Your task to perform on an android device: What's on my calendar today? Image 0: 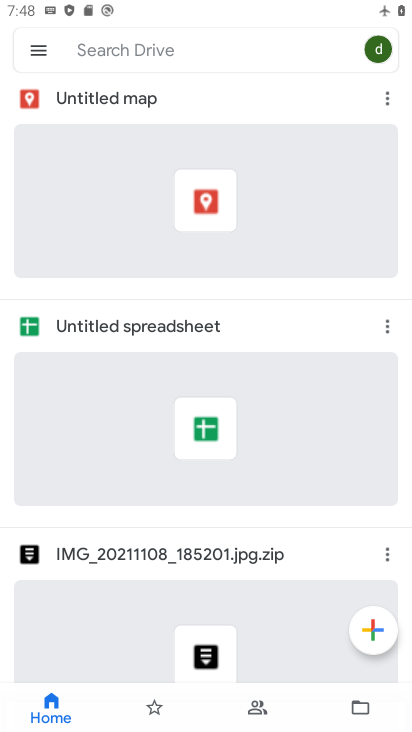
Step 0: press home button
Your task to perform on an android device: What's on my calendar today? Image 1: 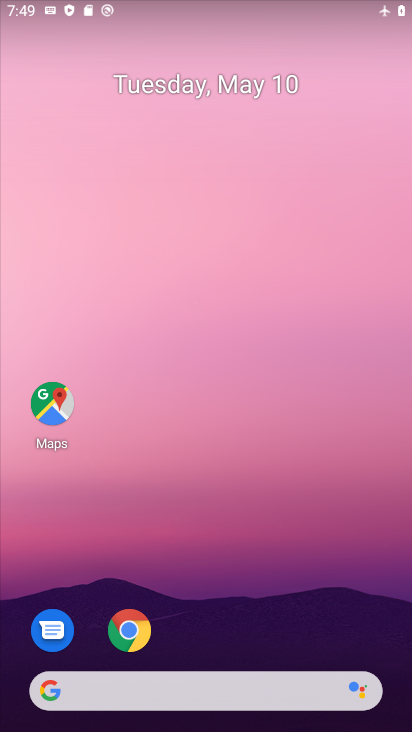
Step 1: drag from (225, 660) to (229, 0)
Your task to perform on an android device: What's on my calendar today? Image 2: 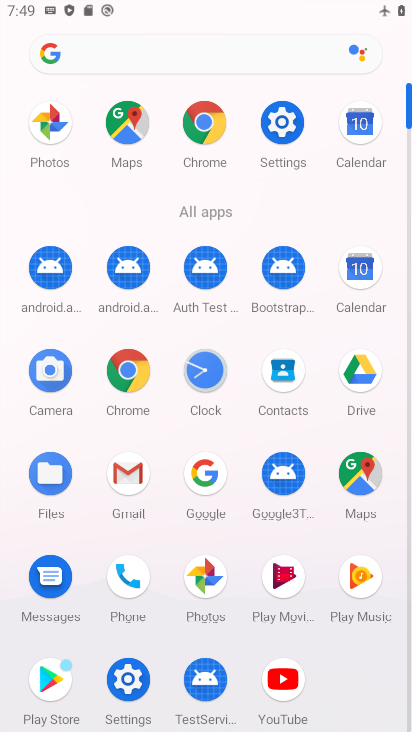
Step 2: click (349, 130)
Your task to perform on an android device: What's on my calendar today? Image 3: 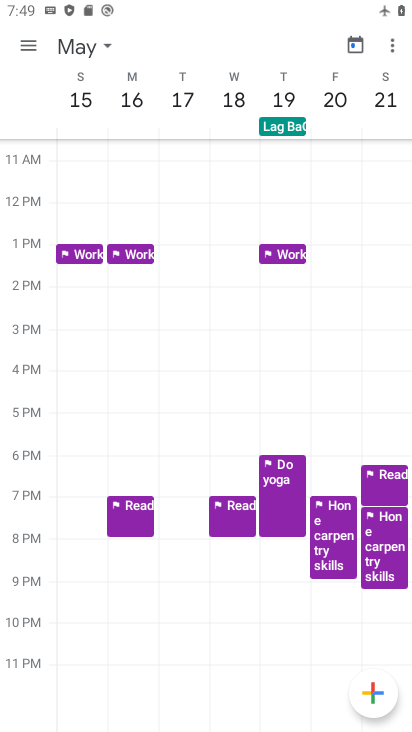
Step 3: click (357, 40)
Your task to perform on an android device: What's on my calendar today? Image 4: 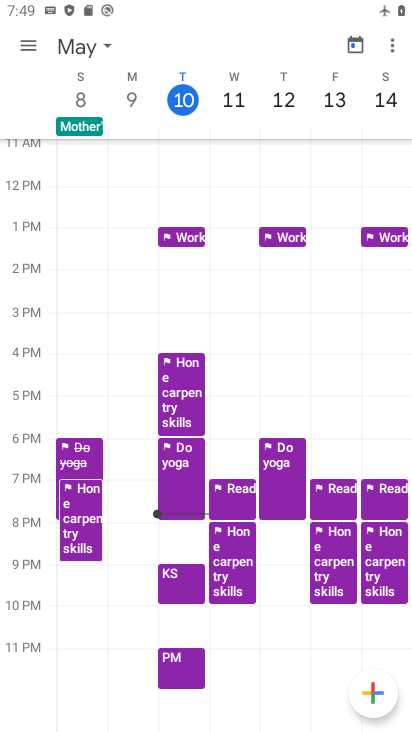
Step 4: click (180, 87)
Your task to perform on an android device: What's on my calendar today? Image 5: 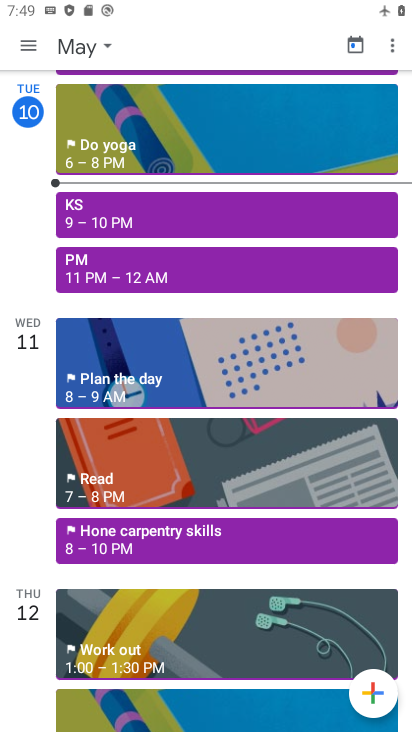
Step 5: task complete